Your task to perform on an android device: change alarm snooze length Image 0: 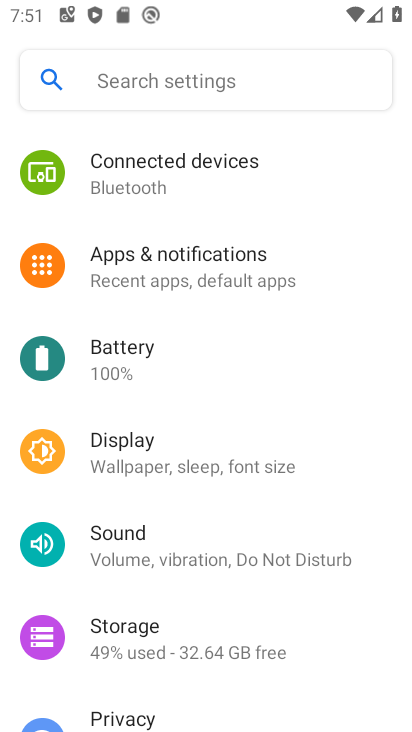
Step 0: press home button
Your task to perform on an android device: change alarm snooze length Image 1: 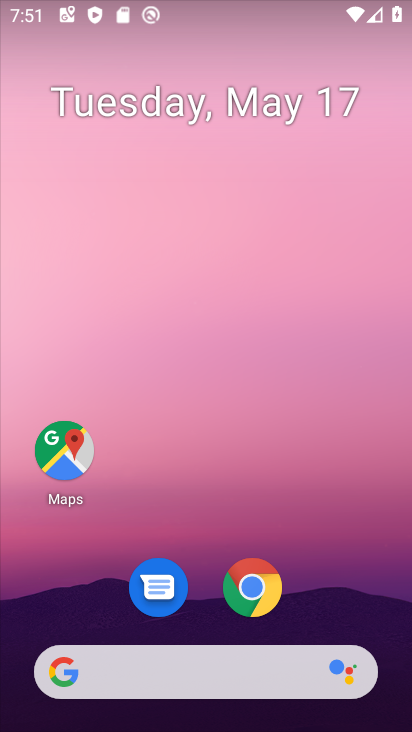
Step 1: drag from (318, 474) to (317, 44)
Your task to perform on an android device: change alarm snooze length Image 2: 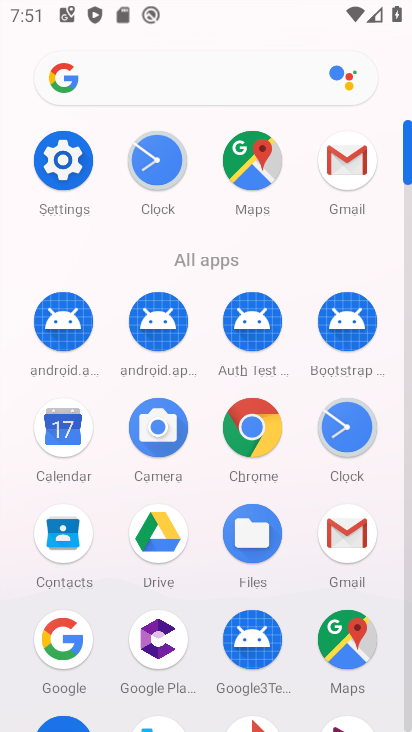
Step 2: click (367, 425)
Your task to perform on an android device: change alarm snooze length Image 3: 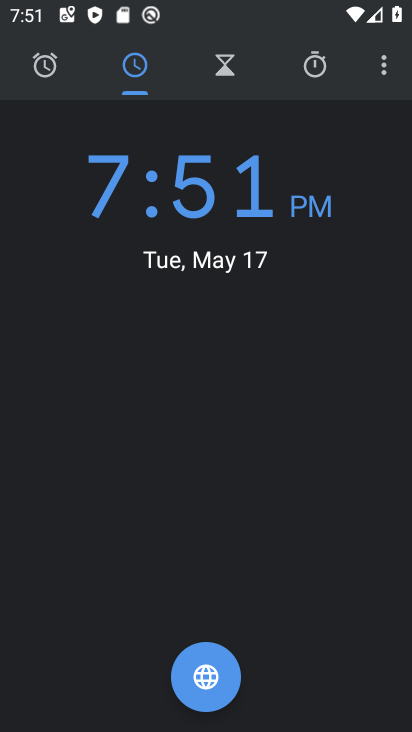
Step 3: click (378, 66)
Your task to perform on an android device: change alarm snooze length Image 4: 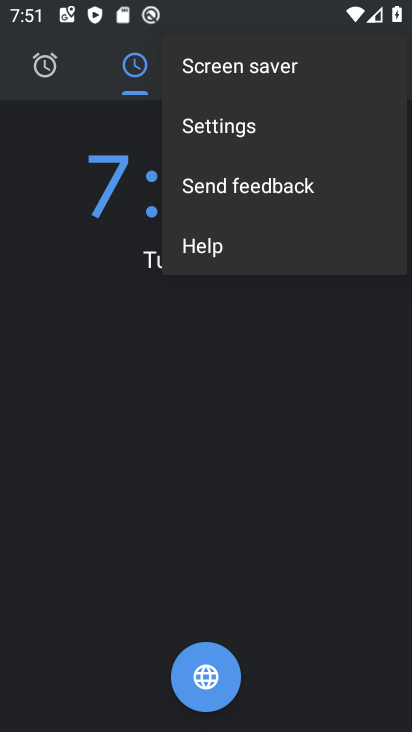
Step 4: click (232, 138)
Your task to perform on an android device: change alarm snooze length Image 5: 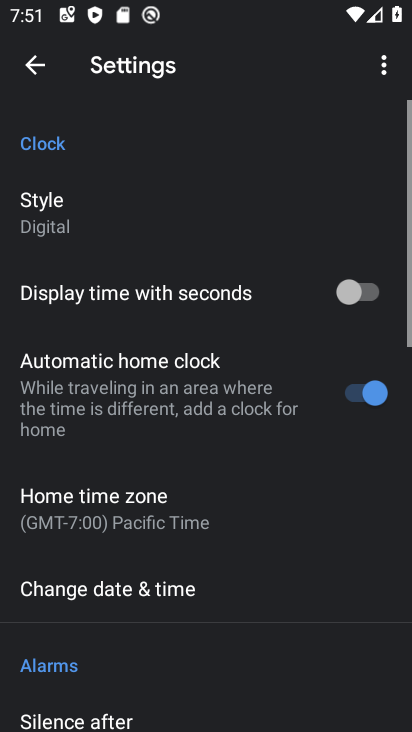
Step 5: drag from (262, 594) to (278, 161)
Your task to perform on an android device: change alarm snooze length Image 6: 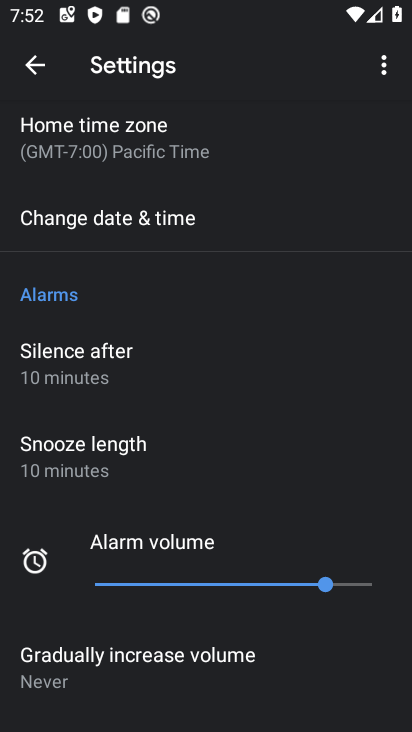
Step 6: click (129, 447)
Your task to perform on an android device: change alarm snooze length Image 7: 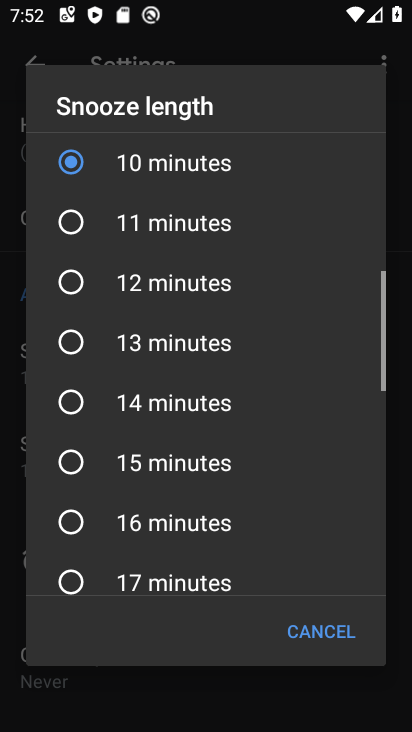
Step 7: click (188, 229)
Your task to perform on an android device: change alarm snooze length Image 8: 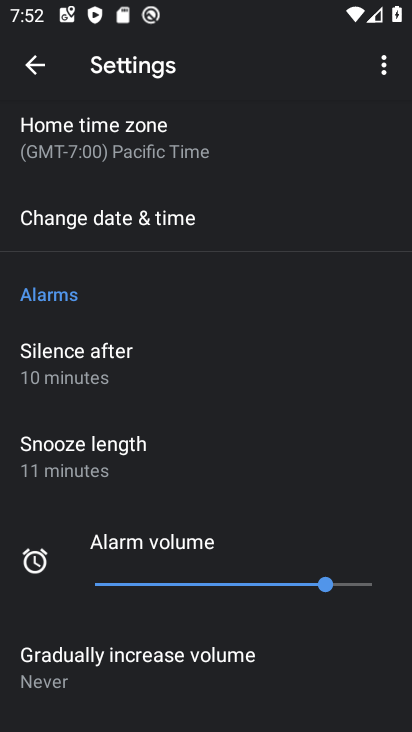
Step 8: task complete